Your task to perform on an android device: What's on my calendar today? Image 0: 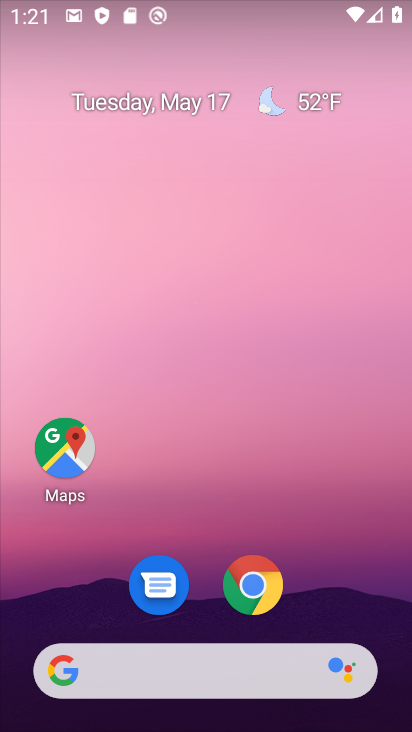
Step 0: drag from (245, 461) to (294, 41)
Your task to perform on an android device: What's on my calendar today? Image 1: 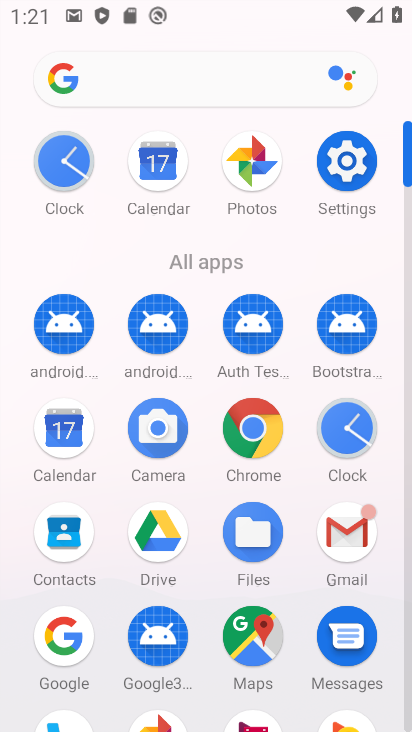
Step 1: click (164, 162)
Your task to perform on an android device: What's on my calendar today? Image 2: 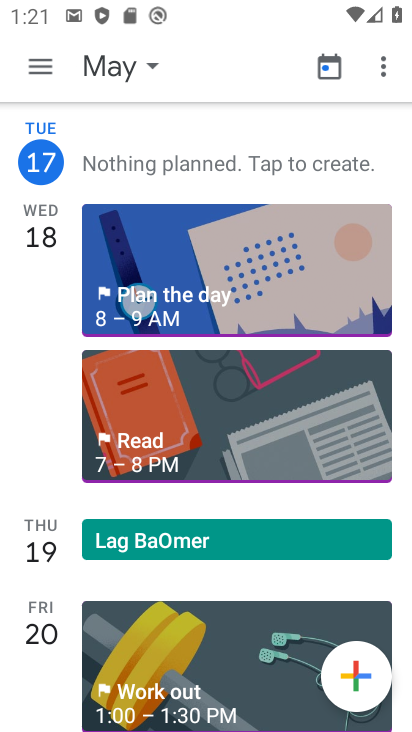
Step 2: task complete